Your task to perform on an android device: Search for seafood restaurants on Google Maps Image 0: 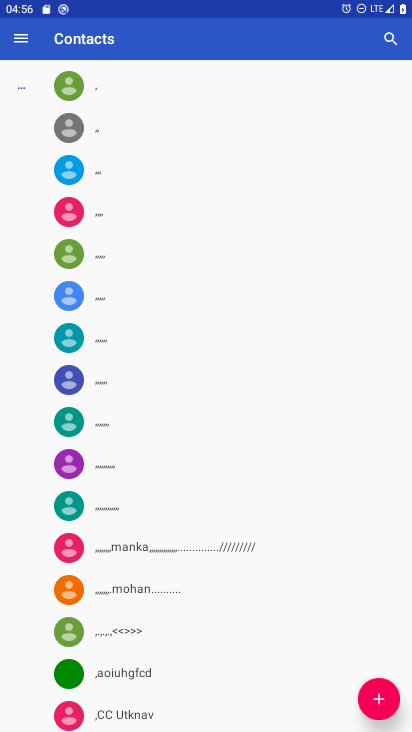
Step 0: press home button
Your task to perform on an android device: Search for seafood restaurants on Google Maps Image 1: 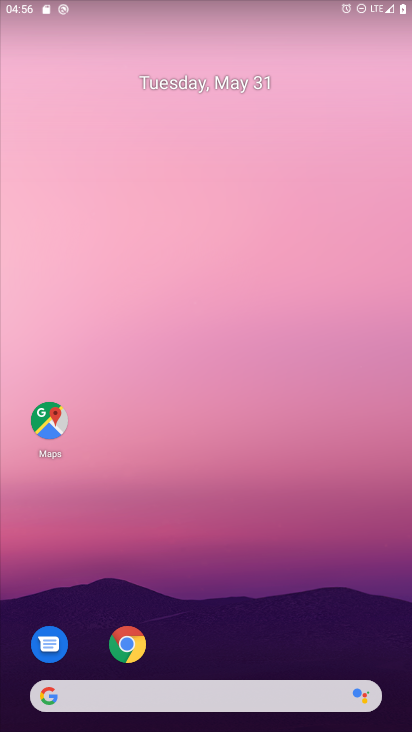
Step 1: click (54, 423)
Your task to perform on an android device: Search for seafood restaurants on Google Maps Image 2: 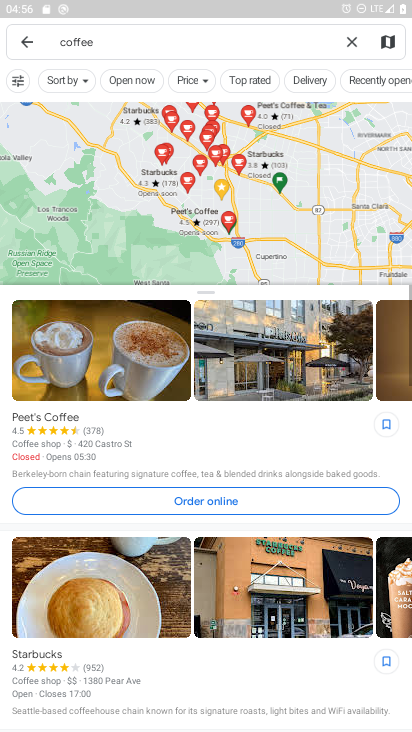
Step 2: click (196, 35)
Your task to perform on an android device: Search for seafood restaurants on Google Maps Image 3: 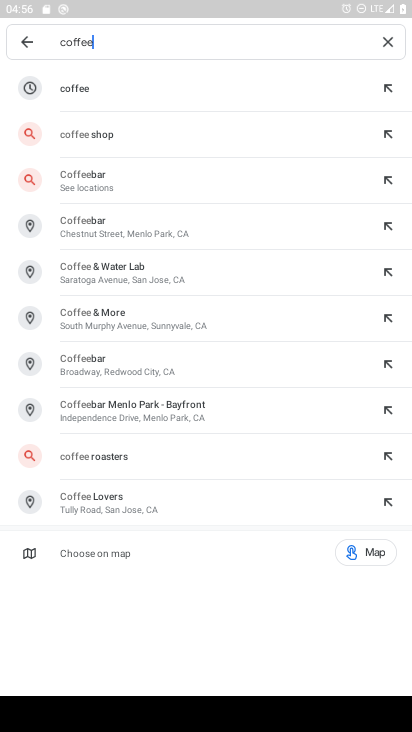
Step 3: click (384, 36)
Your task to perform on an android device: Search for seafood restaurants on Google Maps Image 4: 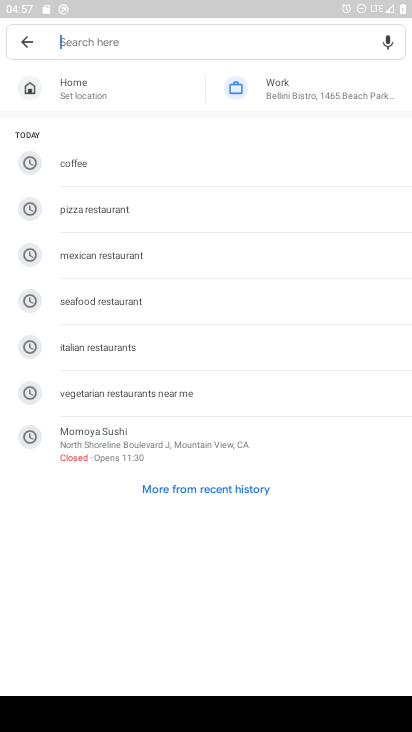
Step 4: type "seafood restaurants"
Your task to perform on an android device: Search for seafood restaurants on Google Maps Image 5: 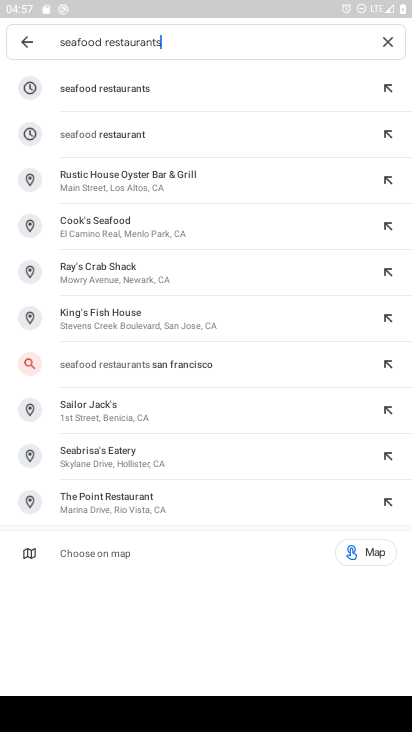
Step 5: click (81, 87)
Your task to perform on an android device: Search for seafood restaurants on Google Maps Image 6: 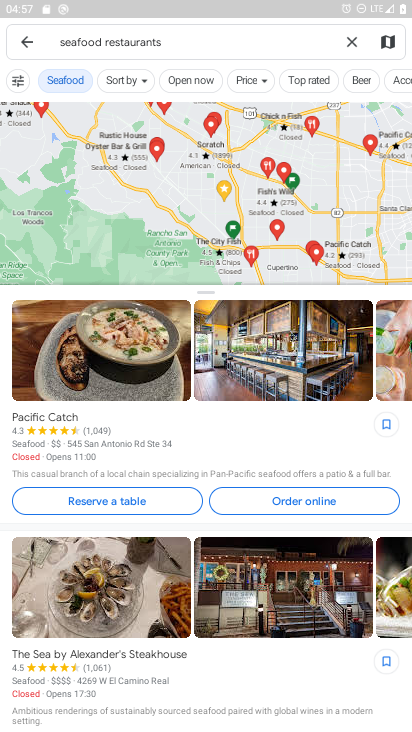
Step 6: task complete